Your task to perform on an android device: toggle translation in the chrome app Image 0: 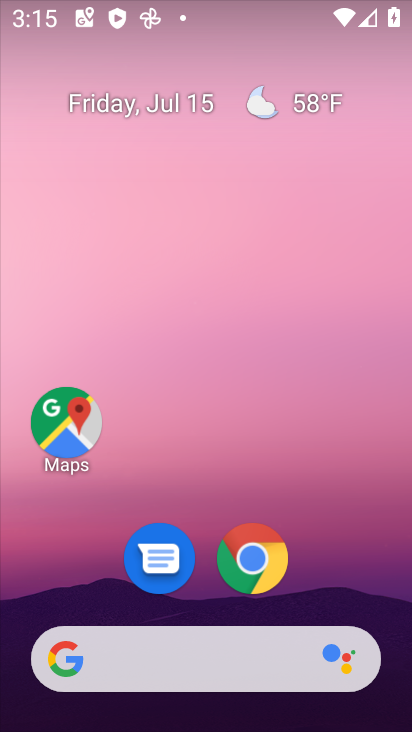
Step 0: drag from (349, 592) to (356, 59)
Your task to perform on an android device: toggle translation in the chrome app Image 1: 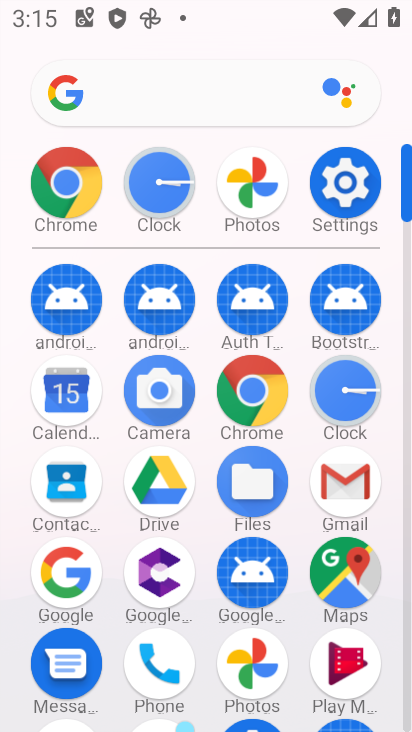
Step 1: click (267, 393)
Your task to perform on an android device: toggle translation in the chrome app Image 2: 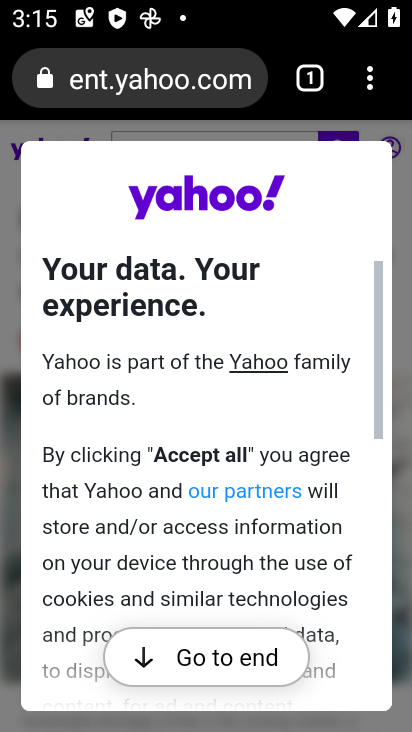
Step 2: click (372, 88)
Your task to perform on an android device: toggle translation in the chrome app Image 3: 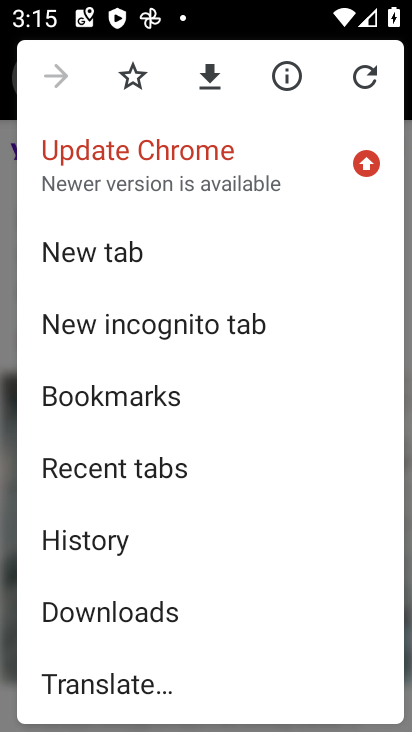
Step 3: drag from (320, 414) to (318, 337)
Your task to perform on an android device: toggle translation in the chrome app Image 4: 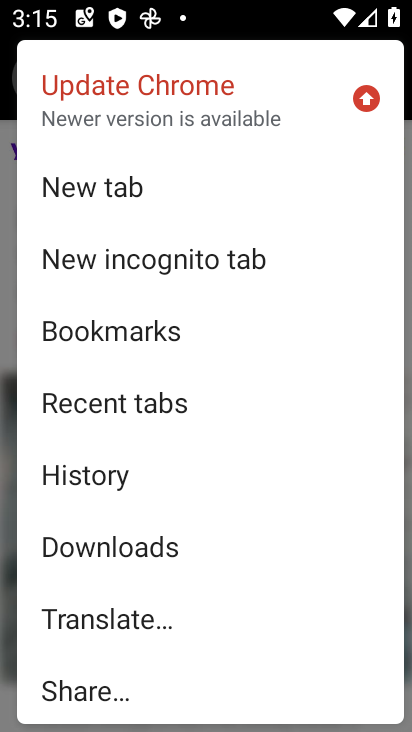
Step 4: drag from (301, 446) to (301, 368)
Your task to perform on an android device: toggle translation in the chrome app Image 5: 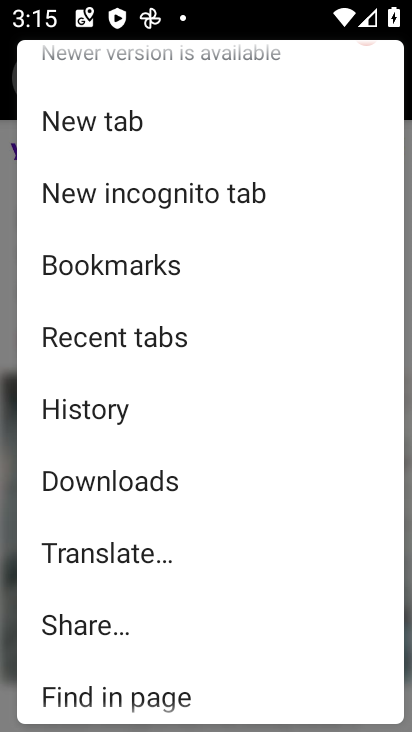
Step 5: drag from (286, 443) to (285, 370)
Your task to perform on an android device: toggle translation in the chrome app Image 6: 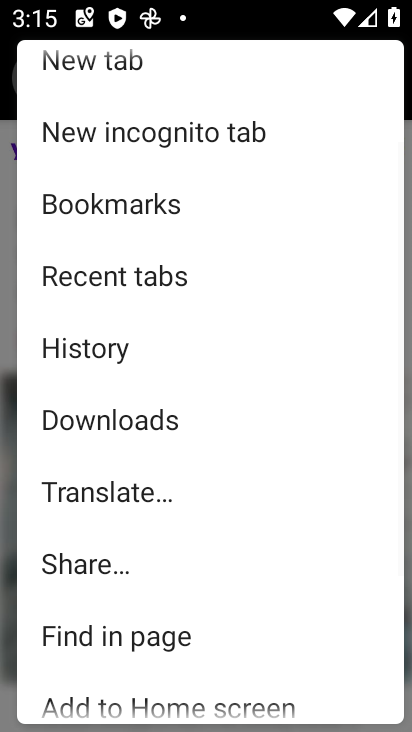
Step 6: drag from (292, 456) to (289, 352)
Your task to perform on an android device: toggle translation in the chrome app Image 7: 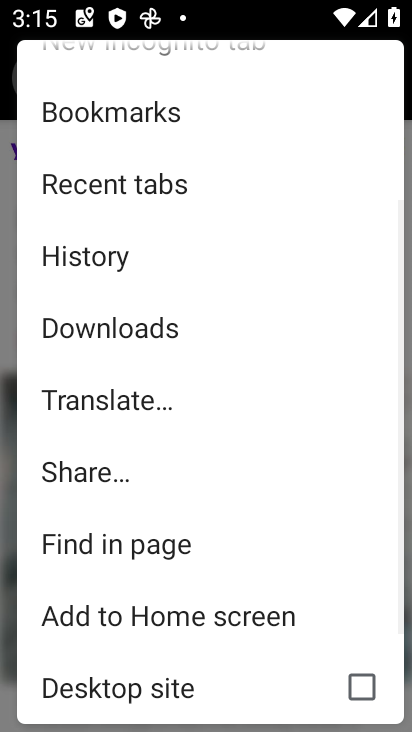
Step 7: drag from (290, 476) to (289, 362)
Your task to perform on an android device: toggle translation in the chrome app Image 8: 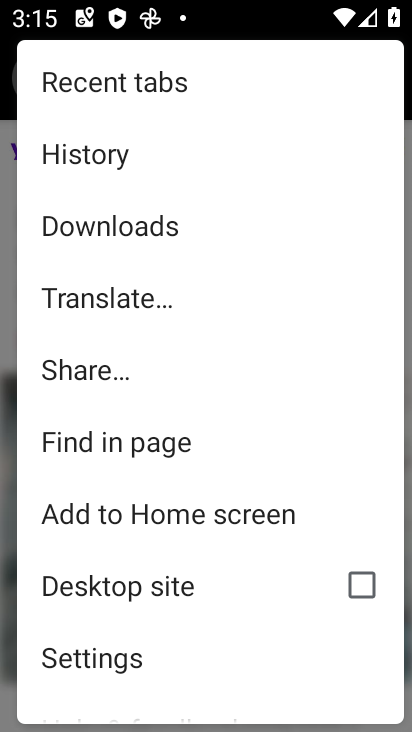
Step 8: click (250, 650)
Your task to perform on an android device: toggle translation in the chrome app Image 9: 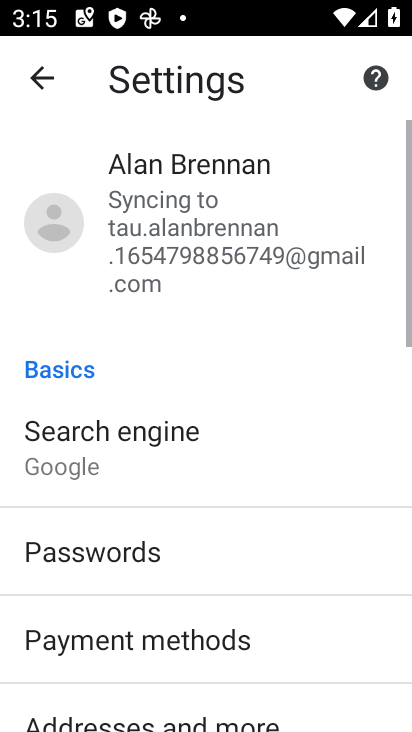
Step 9: drag from (339, 577) to (354, 466)
Your task to perform on an android device: toggle translation in the chrome app Image 10: 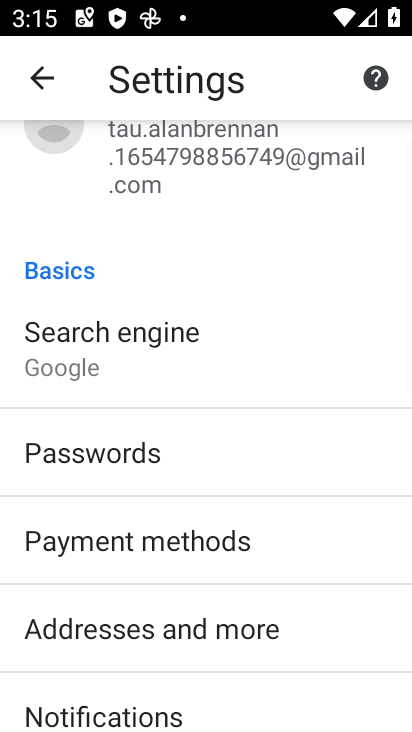
Step 10: drag from (354, 577) to (363, 459)
Your task to perform on an android device: toggle translation in the chrome app Image 11: 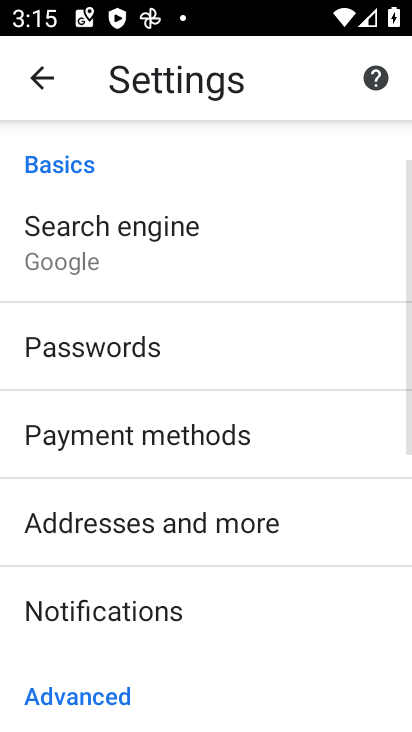
Step 11: drag from (334, 579) to (323, 480)
Your task to perform on an android device: toggle translation in the chrome app Image 12: 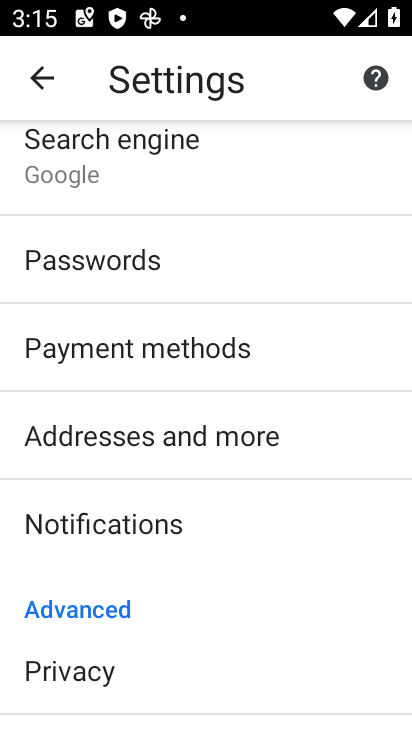
Step 12: drag from (326, 575) to (319, 437)
Your task to perform on an android device: toggle translation in the chrome app Image 13: 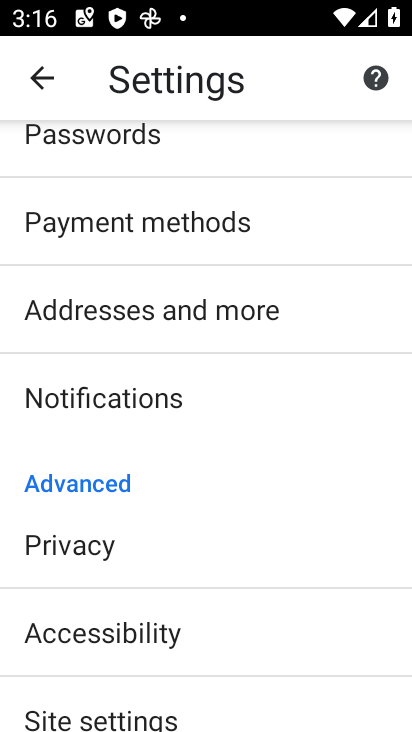
Step 13: drag from (315, 569) to (316, 464)
Your task to perform on an android device: toggle translation in the chrome app Image 14: 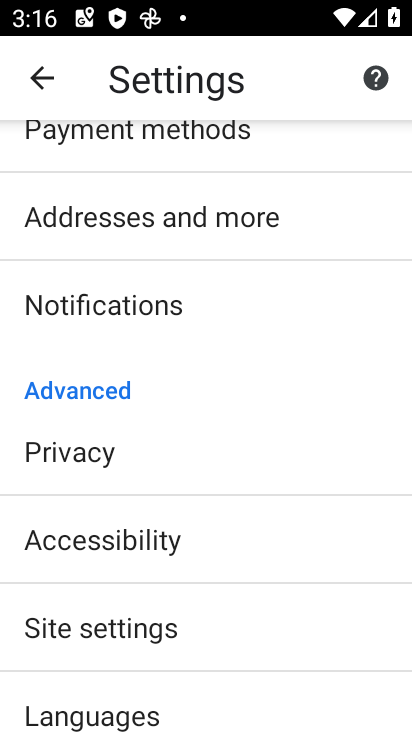
Step 14: drag from (324, 598) to (334, 440)
Your task to perform on an android device: toggle translation in the chrome app Image 15: 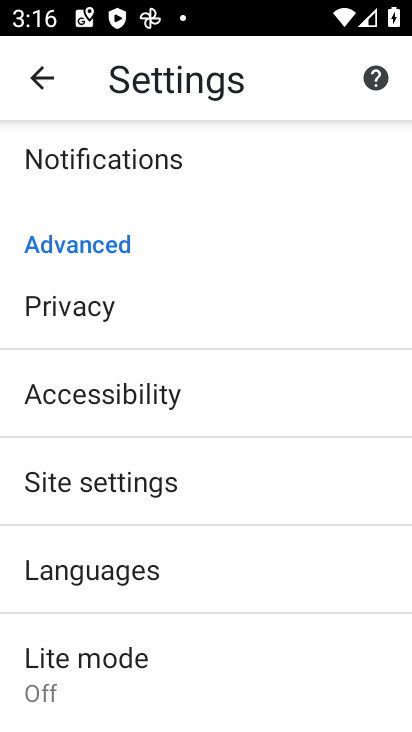
Step 15: drag from (294, 638) to (293, 415)
Your task to perform on an android device: toggle translation in the chrome app Image 16: 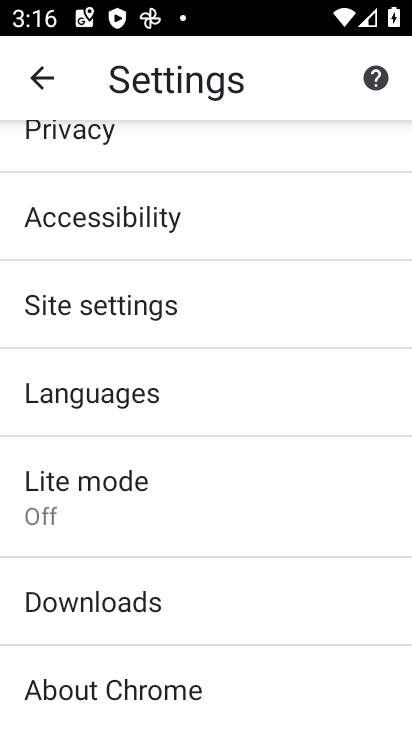
Step 16: click (290, 392)
Your task to perform on an android device: toggle translation in the chrome app Image 17: 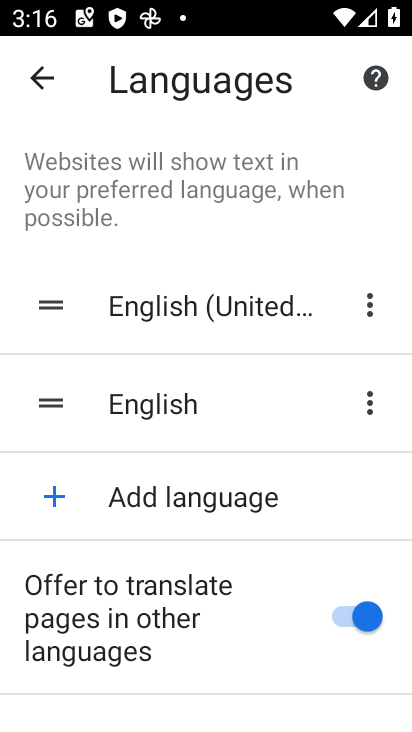
Step 17: click (335, 607)
Your task to perform on an android device: toggle translation in the chrome app Image 18: 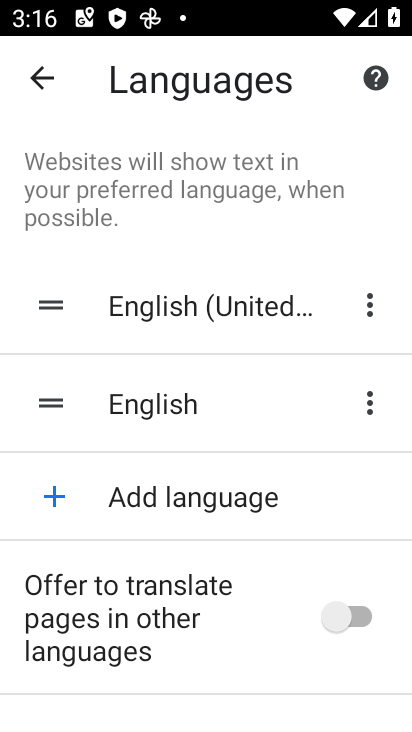
Step 18: task complete